Your task to perform on an android device: Open the web browser Image 0: 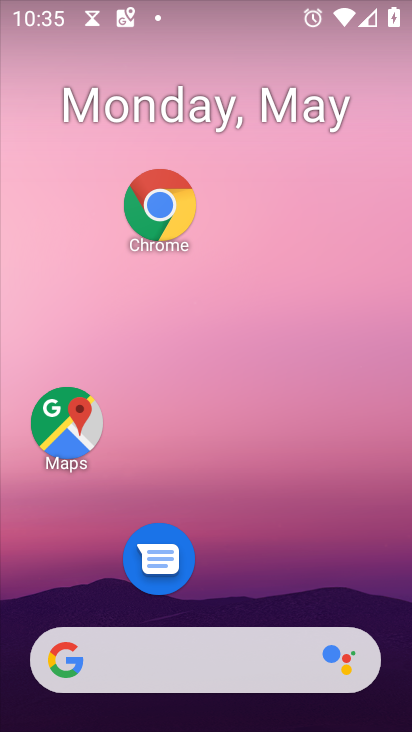
Step 0: drag from (262, 695) to (165, 208)
Your task to perform on an android device: Open the web browser Image 1: 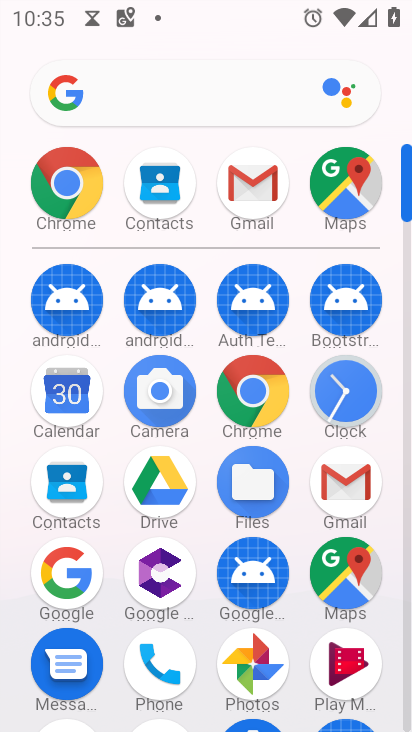
Step 1: click (52, 164)
Your task to perform on an android device: Open the web browser Image 2: 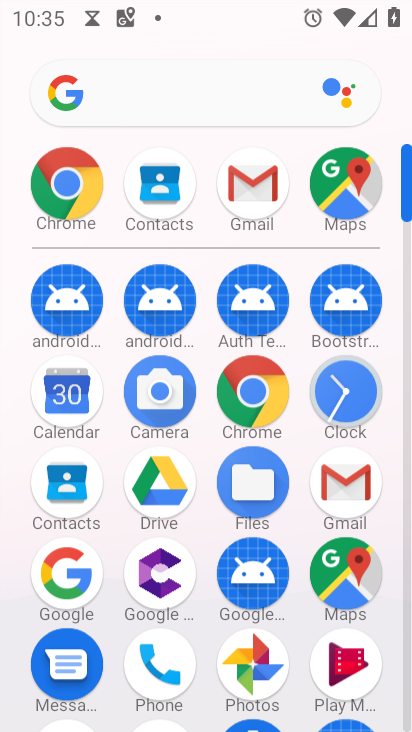
Step 2: click (77, 181)
Your task to perform on an android device: Open the web browser Image 3: 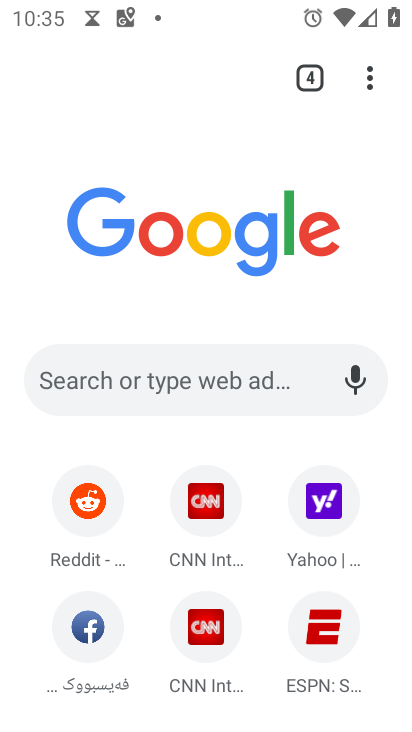
Step 3: click (371, 76)
Your task to perform on an android device: Open the web browser Image 4: 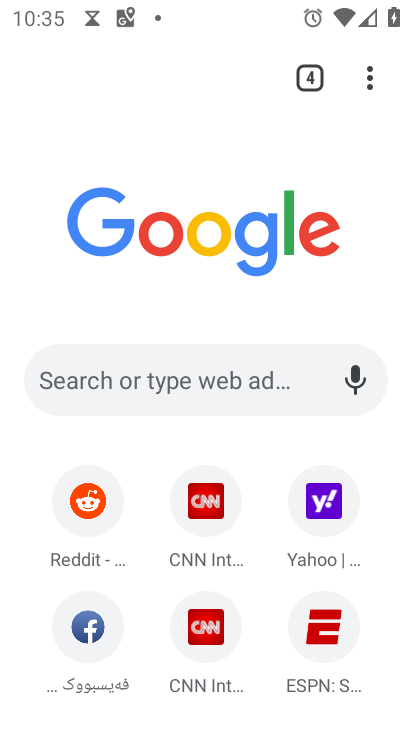
Step 4: click (62, 379)
Your task to perform on an android device: Open the web browser Image 5: 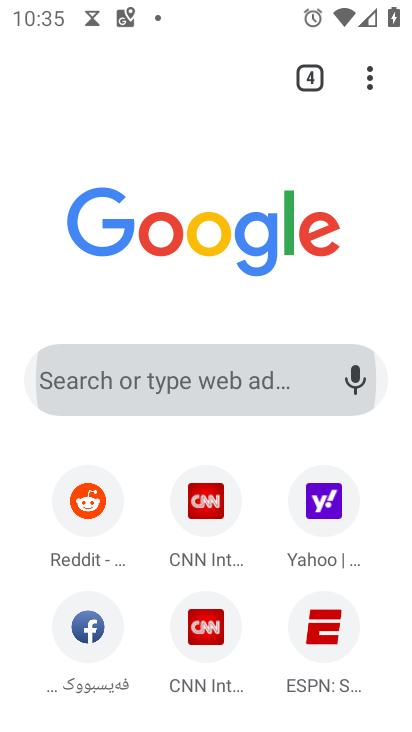
Step 5: click (63, 378)
Your task to perform on an android device: Open the web browser Image 6: 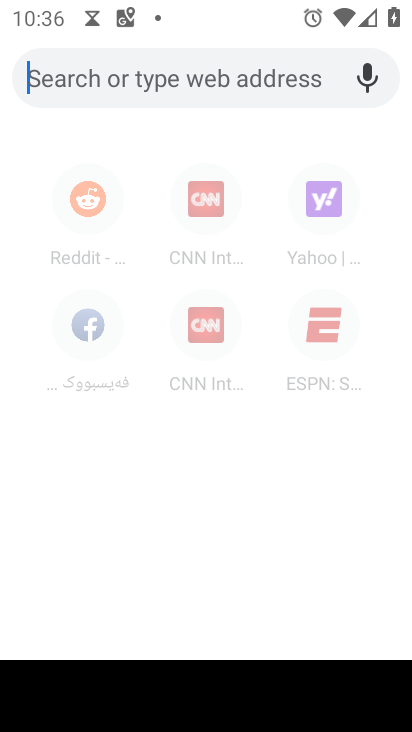
Step 6: click (31, 83)
Your task to perform on an android device: Open the web browser Image 7: 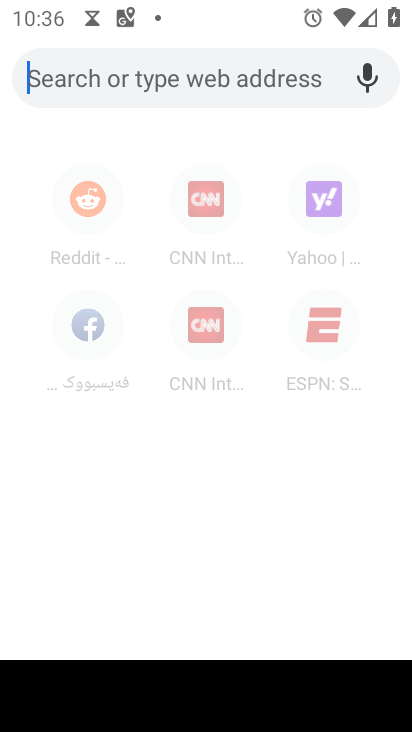
Step 7: click (33, 84)
Your task to perform on an android device: Open the web browser Image 8: 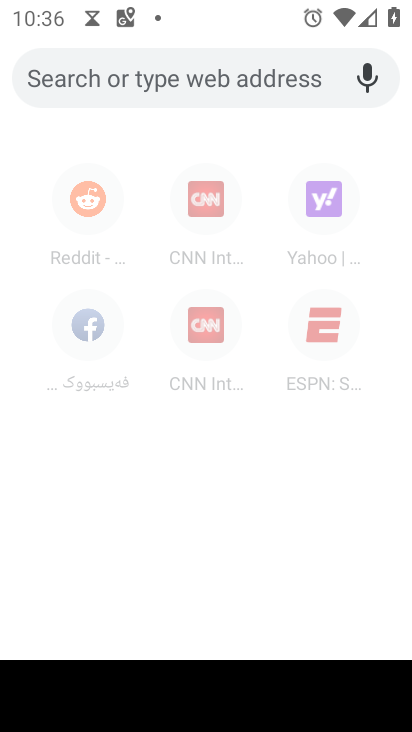
Step 8: click (33, 84)
Your task to perform on an android device: Open the web browser Image 9: 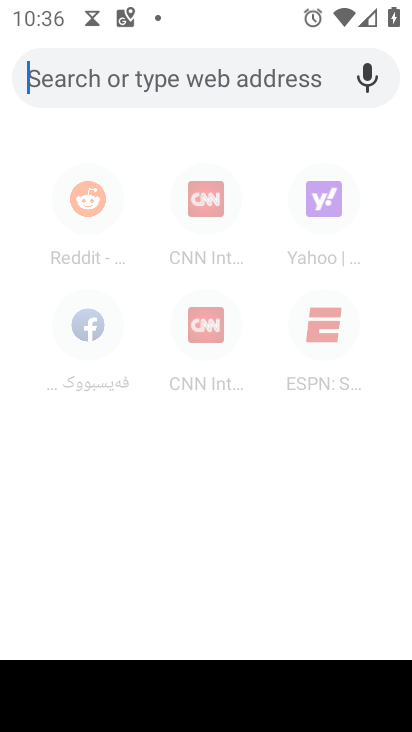
Step 9: task complete